Your task to perform on an android device: Search for pizza restaurants on Maps Image 0: 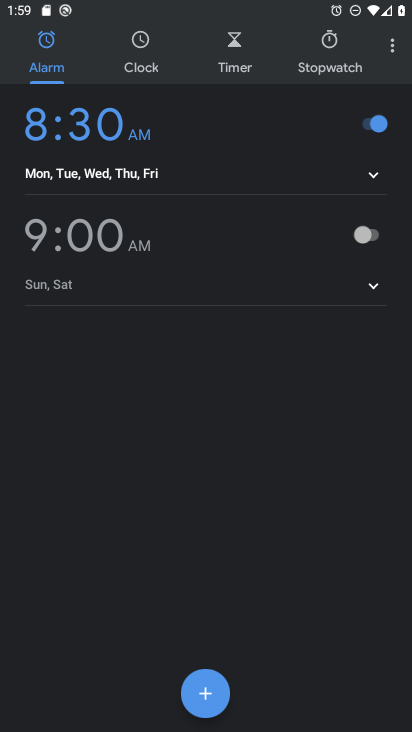
Step 0: press home button
Your task to perform on an android device: Search for pizza restaurants on Maps Image 1: 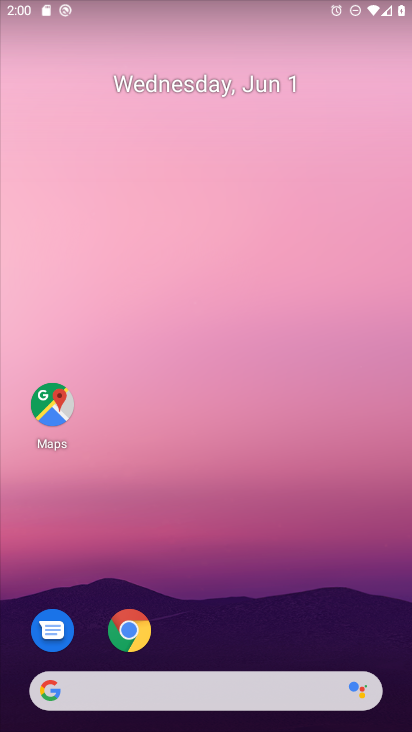
Step 1: drag from (287, 637) to (282, 15)
Your task to perform on an android device: Search for pizza restaurants on Maps Image 2: 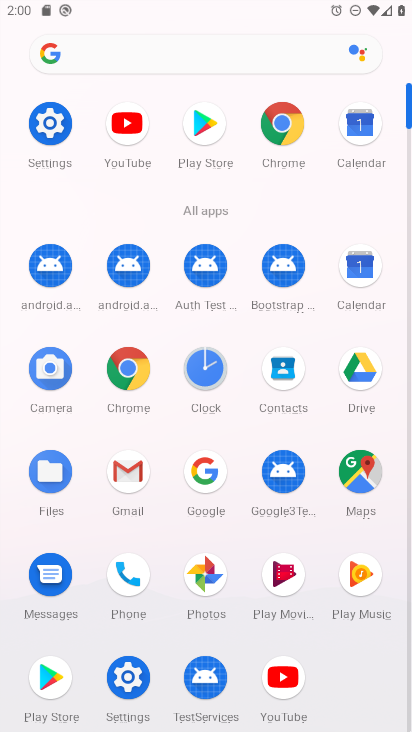
Step 2: click (365, 472)
Your task to perform on an android device: Search for pizza restaurants on Maps Image 3: 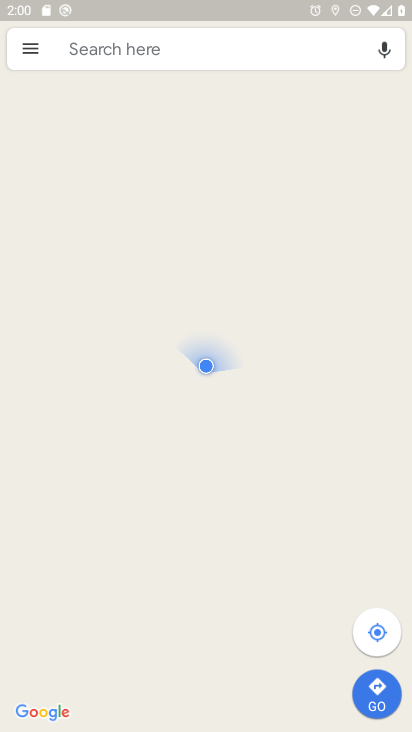
Step 3: click (221, 56)
Your task to perform on an android device: Search for pizza restaurants on Maps Image 4: 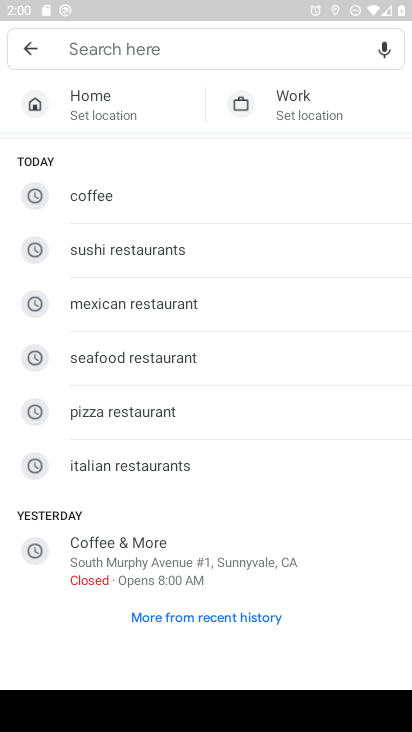
Step 4: type "pizza restaurant"
Your task to perform on an android device: Search for pizza restaurants on Maps Image 5: 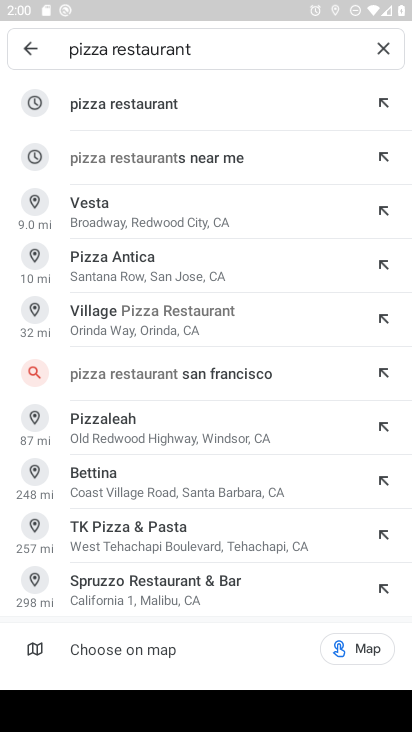
Step 5: click (250, 120)
Your task to perform on an android device: Search for pizza restaurants on Maps Image 6: 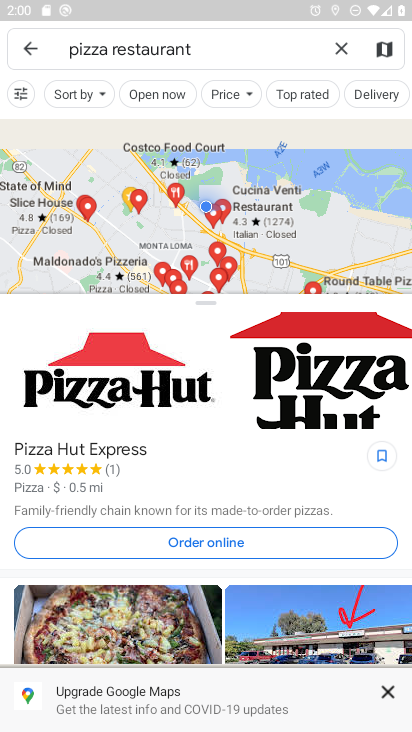
Step 6: task complete